Your task to perform on an android device: Is it going to rain today? Image 0: 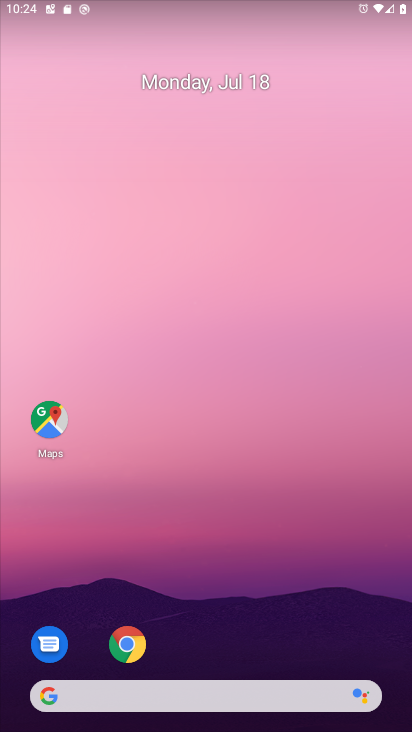
Step 0: drag from (305, 646) to (243, 198)
Your task to perform on an android device: Is it going to rain today? Image 1: 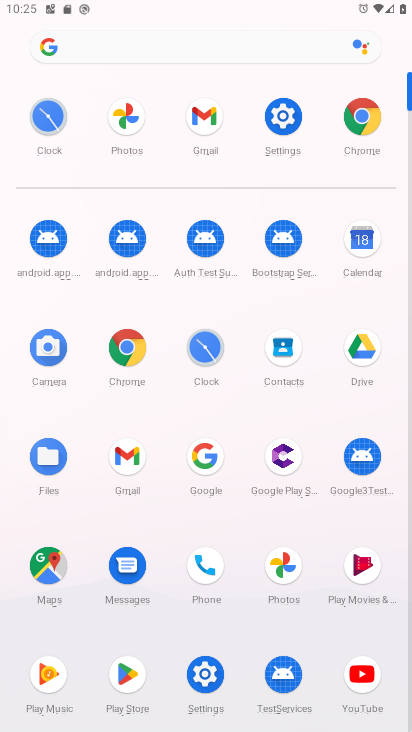
Step 1: click (220, 52)
Your task to perform on an android device: Is it going to rain today? Image 2: 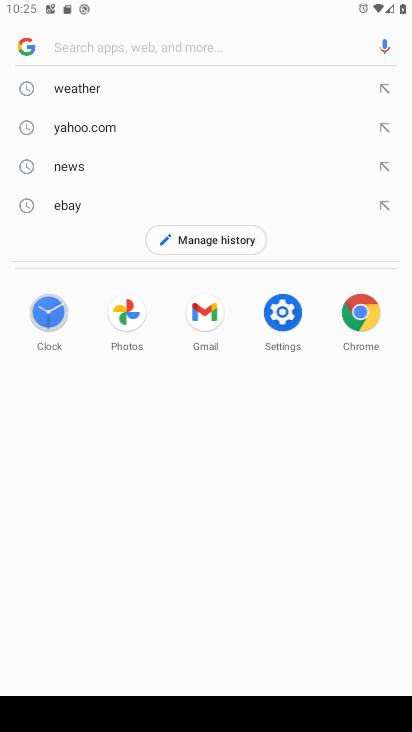
Step 2: type "rain"
Your task to perform on an android device: Is it going to rain today? Image 3: 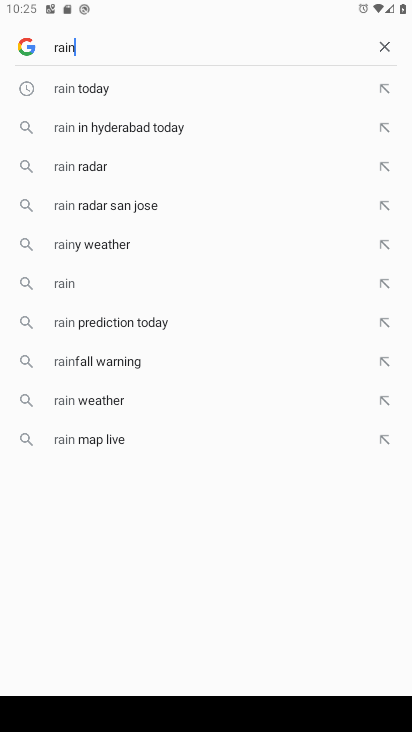
Step 3: click (273, 63)
Your task to perform on an android device: Is it going to rain today? Image 4: 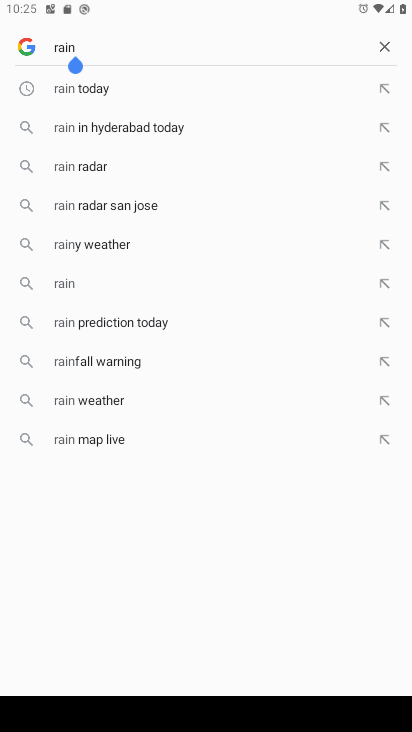
Step 4: click (129, 97)
Your task to perform on an android device: Is it going to rain today? Image 5: 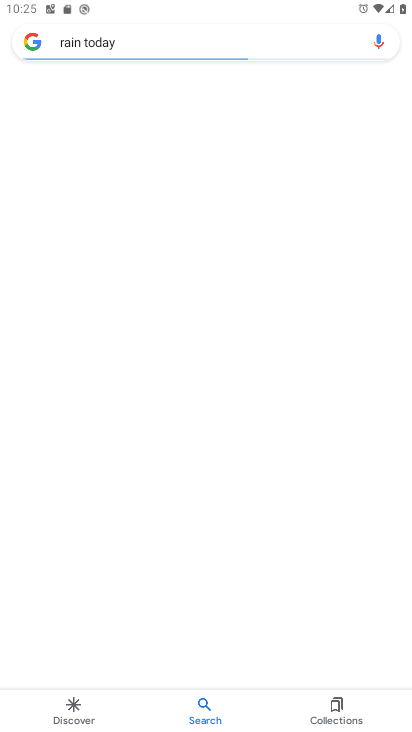
Step 5: task complete